Your task to perform on an android device: Show me popular games on the Play Store Image 0: 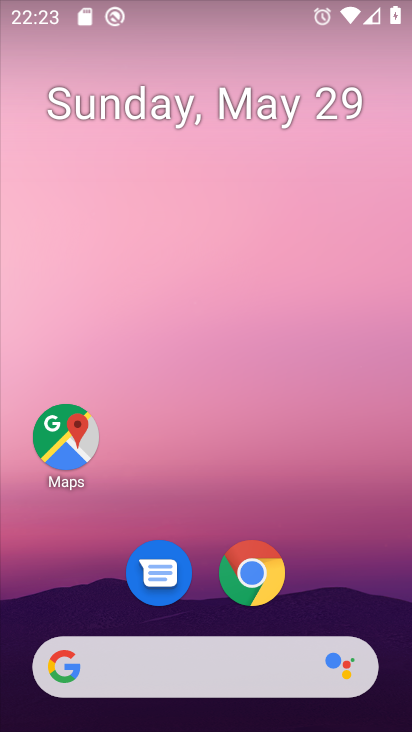
Step 0: drag from (224, 470) to (188, 16)
Your task to perform on an android device: Show me popular games on the Play Store Image 1: 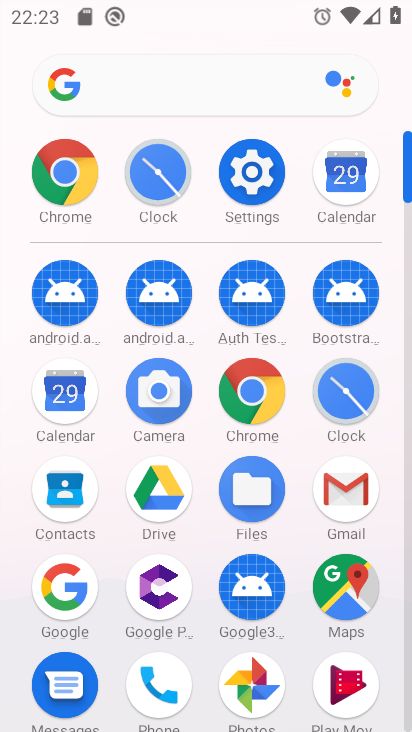
Step 1: drag from (202, 530) to (220, 237)
Your task to perform on an android device: Show me popular games on the Play Store Image 2: 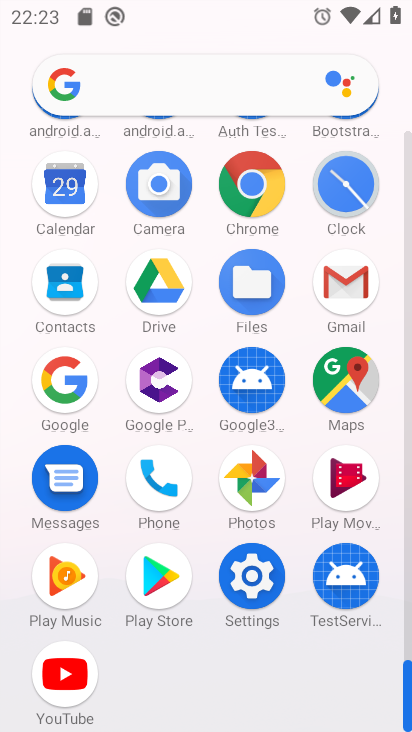
Step 2: click (168, 558)
Your task to perform on an android device: Show me popular games on the Play Store Image 3: 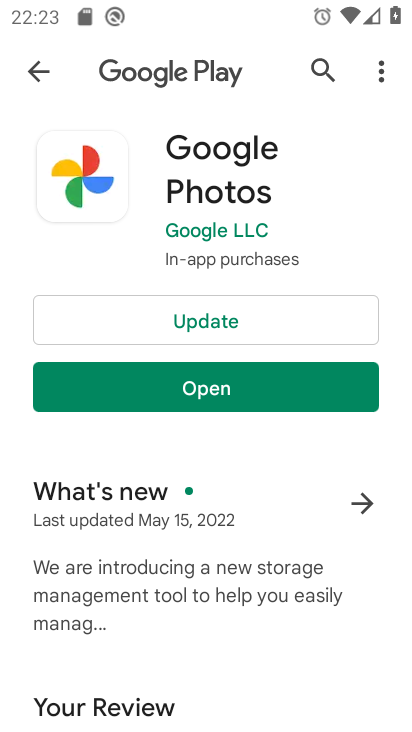
Step 3: click (33, 69)
Your task to perform on an android device: Show me popular games on the Play Store Image 4: 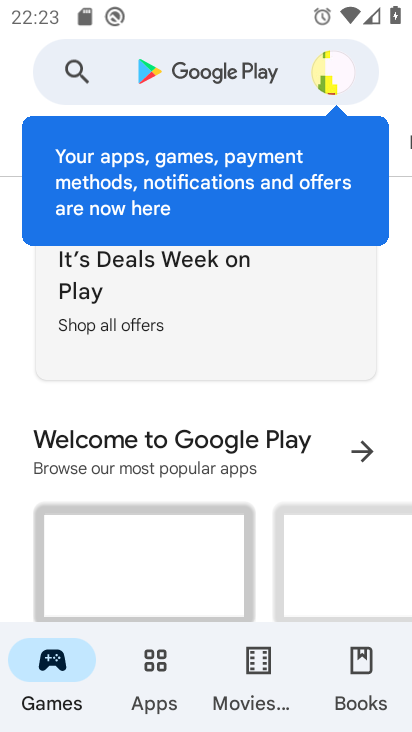
Step 4: click (161, 692)
Your task to perform on an android device: Show me popular games on the Play Store Image 5: 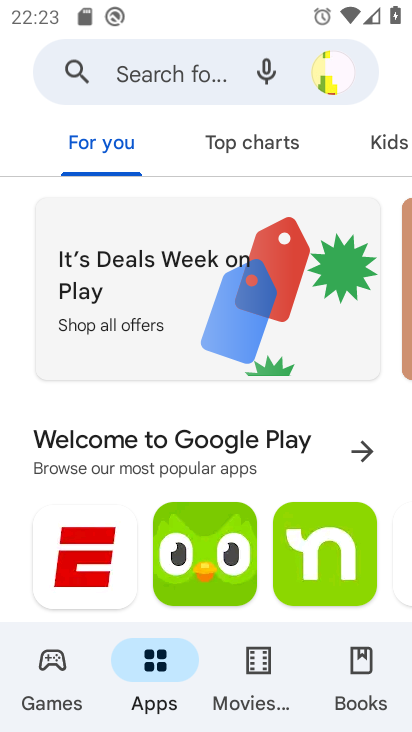
Step 5: click (55, 671)
Your task to perform on an android device: Show me popular games on the Play Store Image 6: 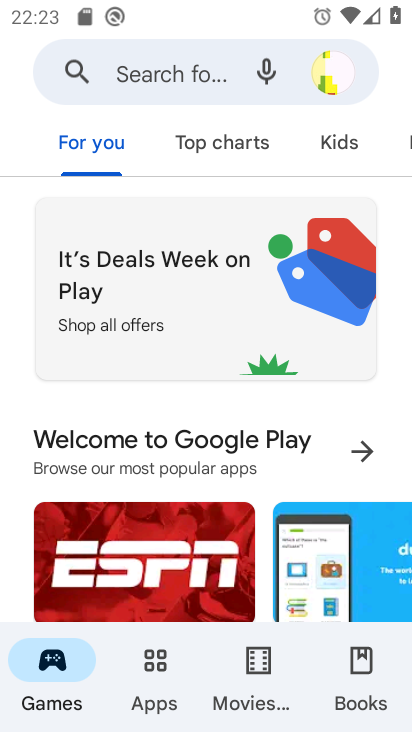
Step 6: drag from (290, 424) to (300, 11)
Your task to perform on an android device: Show me popular games on the Play Store Image 7: 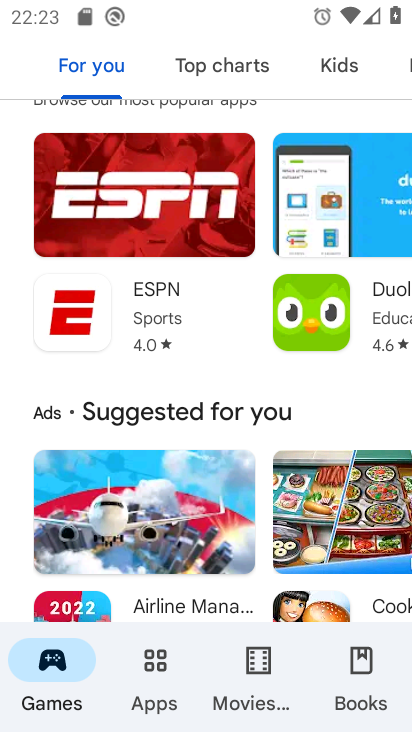
Step 7: drag from (274, 477) to (296, 35)
Your task to perform on an android device: Show me popular games on the Play Store Image 8: 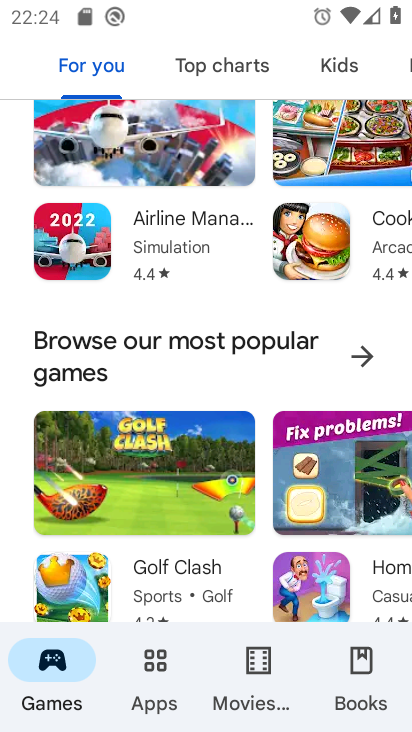
Step 8: click (367, 344)
Your task to perform on an android device: Show me popular games on the Play Store Image 9: 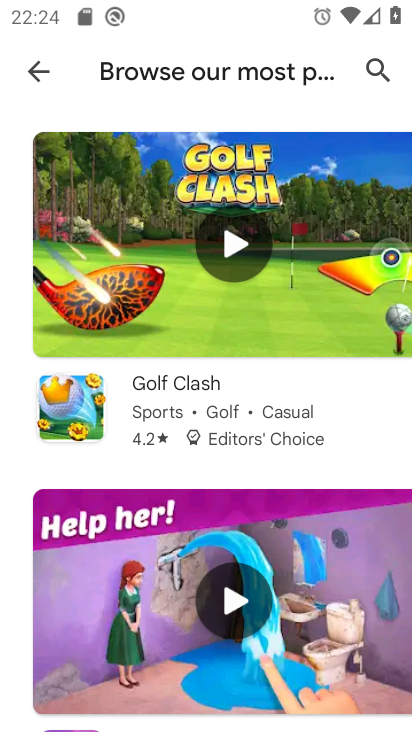
Step 9: task complete